Your task to perform on an android device: allow notifications from all sites in the chrome app Image 0: 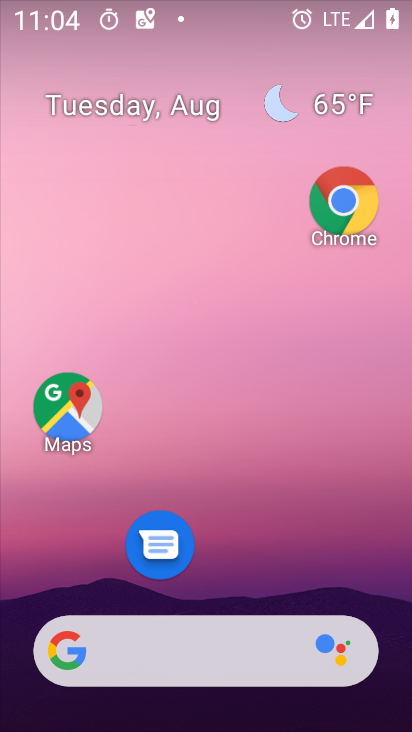
Step 0: drag from (230, 600) to (297, 194)
Your task to perform on an android device: allow notifications from all sites in the chrome app Image 1: 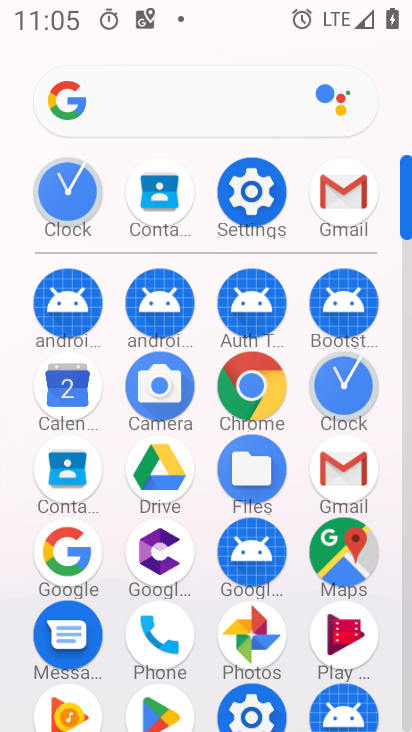
Step 1: click (268, 396)
Your task to perform on an android device: allow notifications from all sites in the chrome app Image 2: 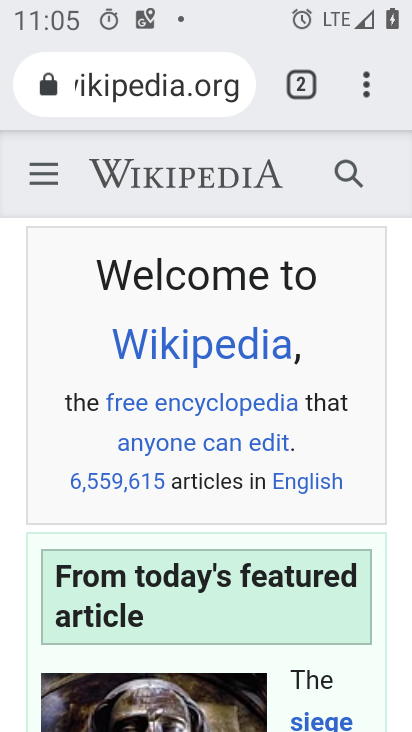
Step 2: click (365, 90)
Your task to perform on an android device: allow notifications from all sites in the chrome app Image 3: 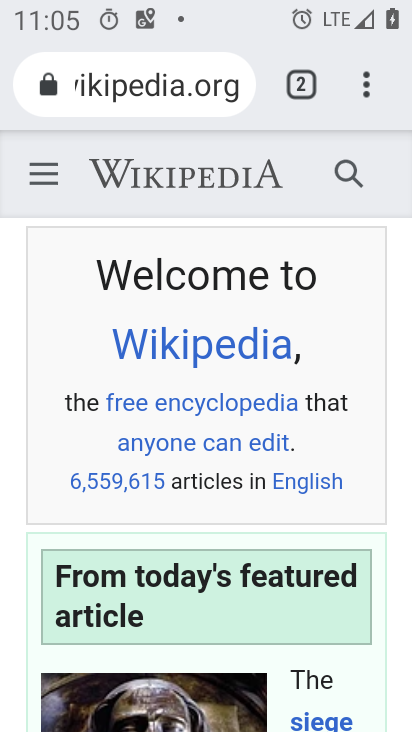
Step 3: click (365, 90)
Your task to perform on an android device: allow notifications from all sites in the chrome app Image 4: 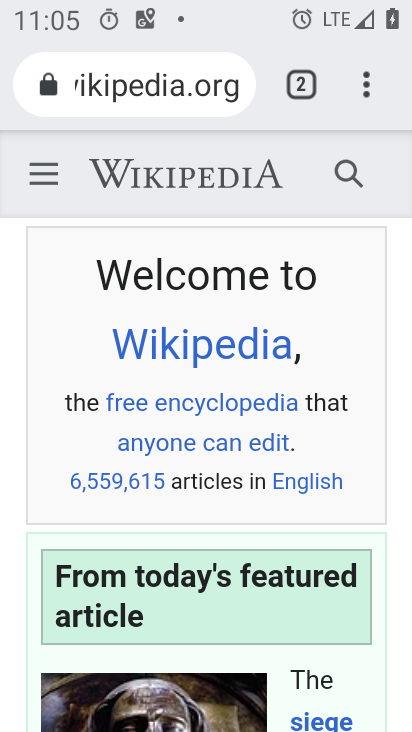
Step 4: click (364, 82)
Your task to perform on an android device: allow notifications from all sites in the chrome app Image 5: 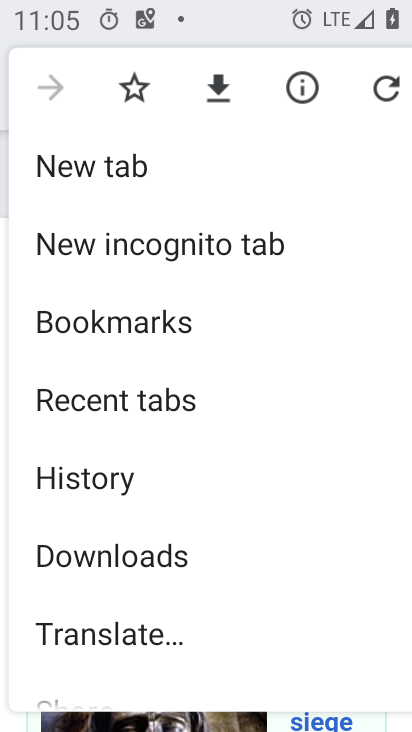
Step 5: drag from (165, 578) to (179, 395)
Your task to perform on an android device: allow notifications from all sites in the chrome app Image 6: 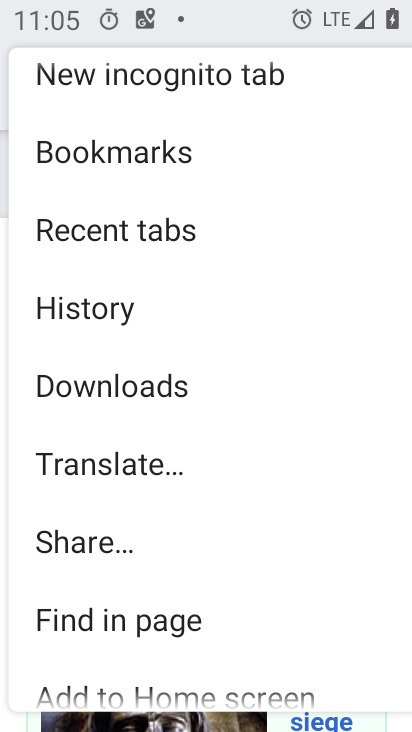
Step 6: drag from (183, 639) to (191, 510)
Your task to perform on an android device: allow notifications from all sites in the chrome app Image 7: 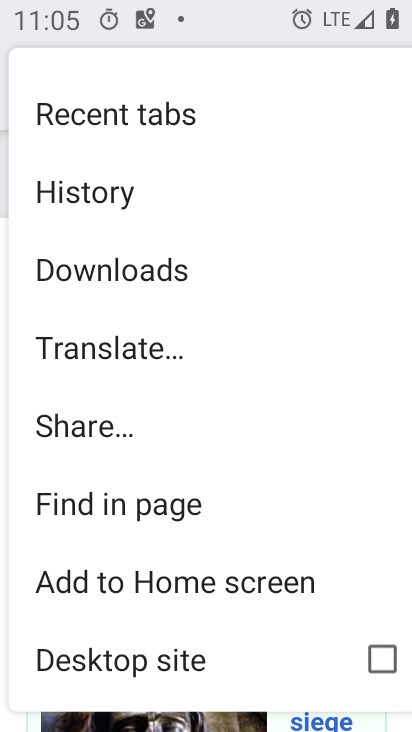
Step 7: drag from (159, 697) to (180, 495)
Your task to perform on an android device: allow notifications from all sites in the chrome app Image 8: 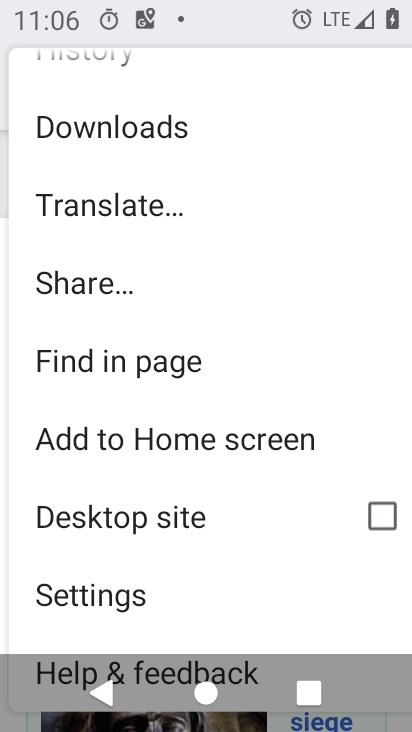
Step 8: click (127, 593)
Your task to perform on an android device: allow notifications from all sites in the chrome app Image 9: 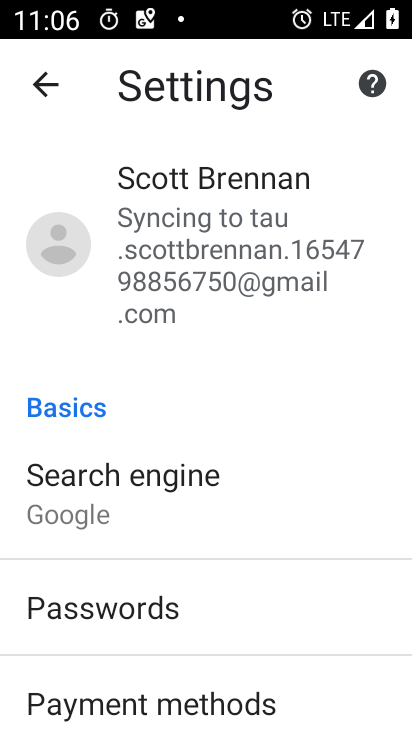
Step 9: drag from (116, 625) to (226, 194)
Your task to perform on an android device: allow notifications from all sites in the chrome app Image 10: 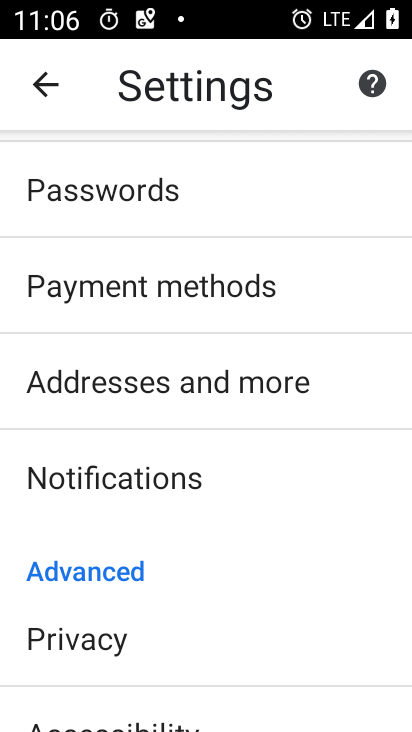
Step 10: click (159, 493)
Your task to perform on an android device: allow notifications from all sites in the chrome app Image 11: 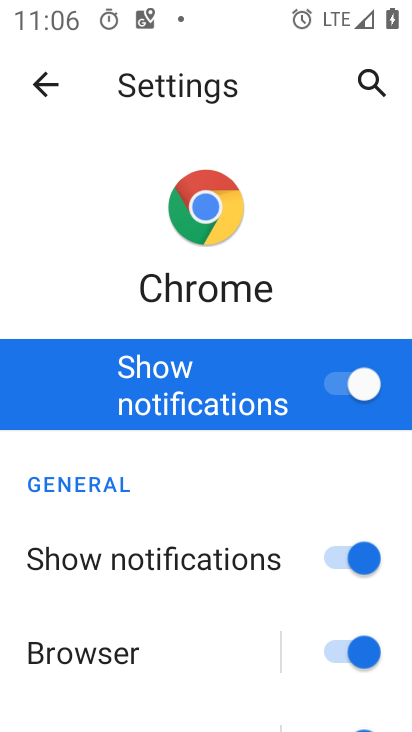
Step 11: task complete